Your task to perform on an android device: set default search engine in the chrome app Image 0: 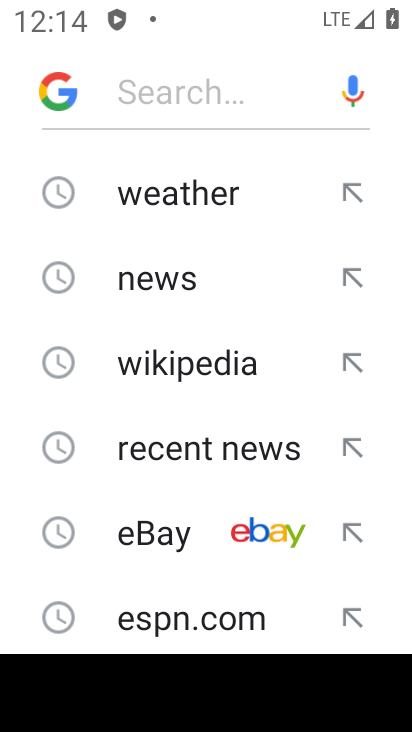
Step 0: press home button
Your task to perform on an android device: set default search engine in the chrome app Image 1: 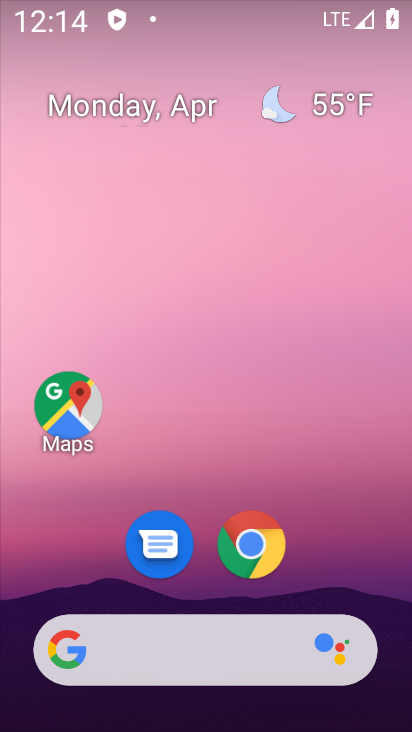
Step 1: click (259, 581)
Your task to perform on an android device: set default search engine in the chrome app Image 2: 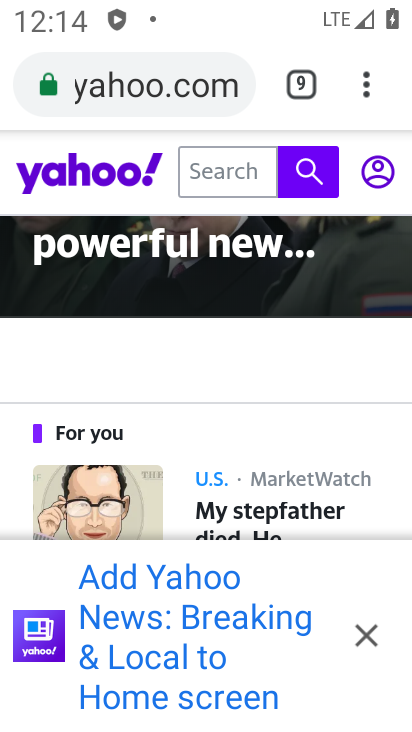
Step 2: drag from (368, 83) to (111, 599)
Your task to perform on an android device: set default search engine in the chrome app Image 3: 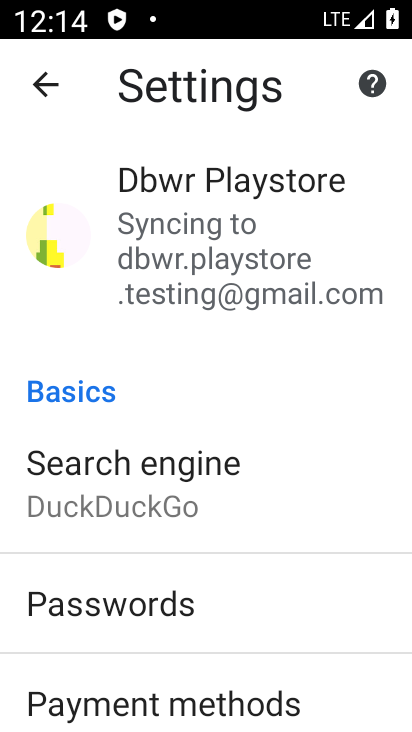
Step 3: click (129, 480)
Your task to perform on an android device: set default search engine in the chrome app Image 4: 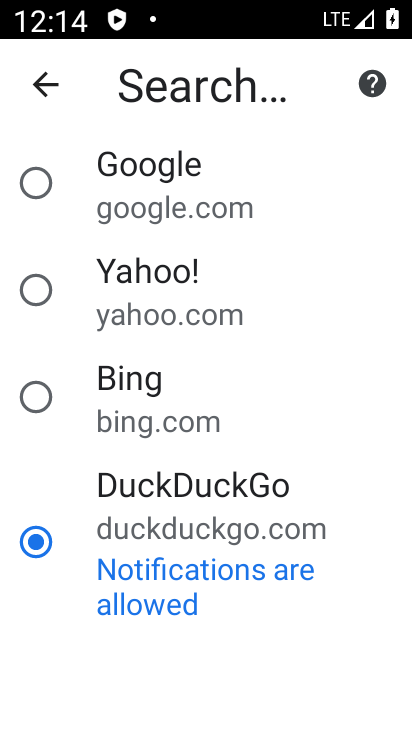
Step 4: click (90, 180)
Your task to perform on an android device: set default search engine in the chrome app Image 5: 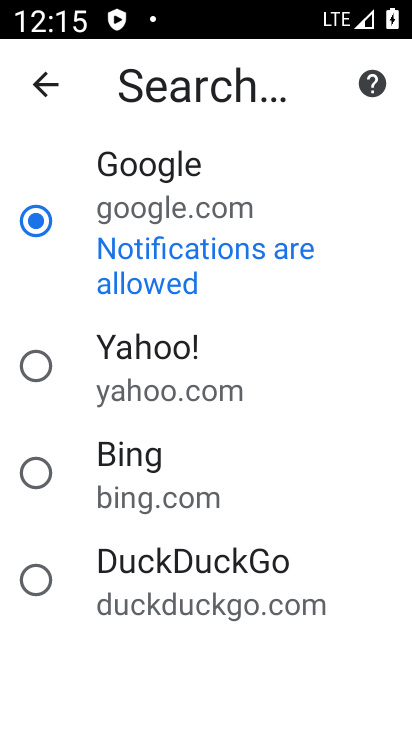
Step 5: task complete